Your task to perform on an android device: Open Yahoo.com Image 0: 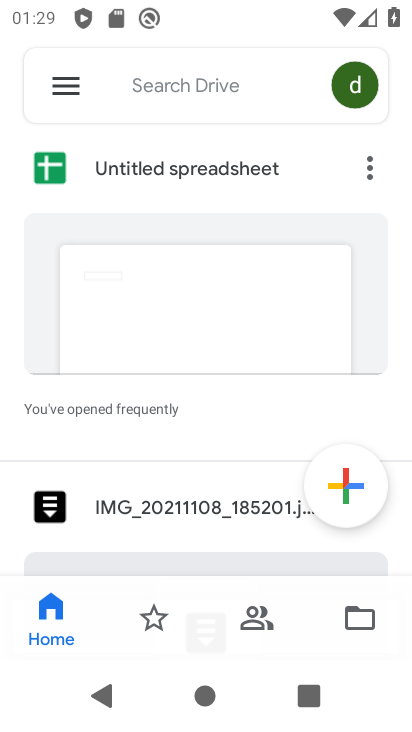
Step 0: press home button
Your task to perform on an android device: Open Yahoo.com Image 1: 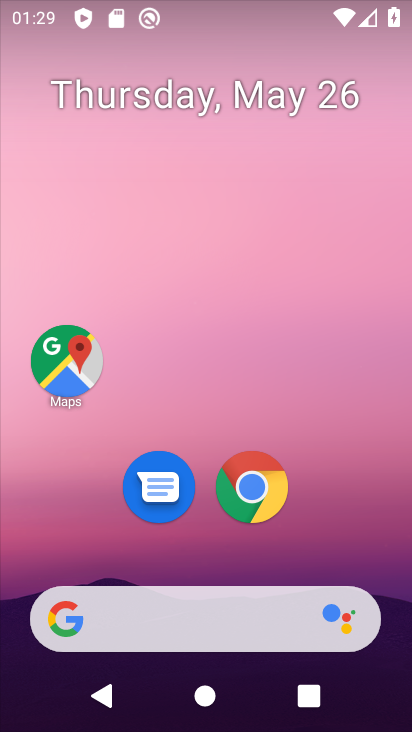
Step 1: drag from (248, 607) to (103, 6)
Your task to perform on an android device: Open Yahoo.com Image 2: 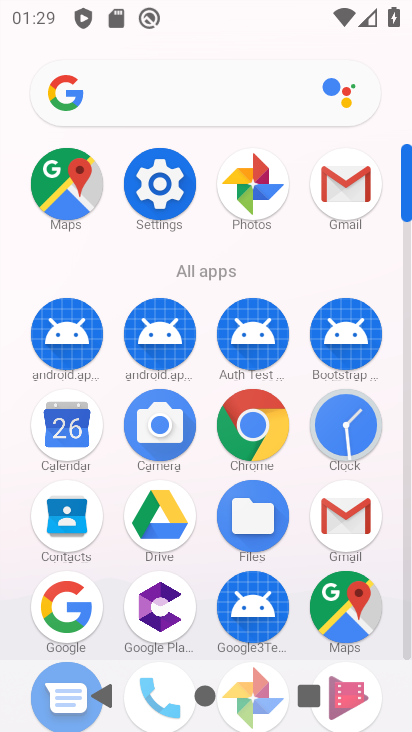
Step 2: drag from (213, 554) to (0, 389)
Your task to perform on an android device: Open Yahoo.com Image 3: 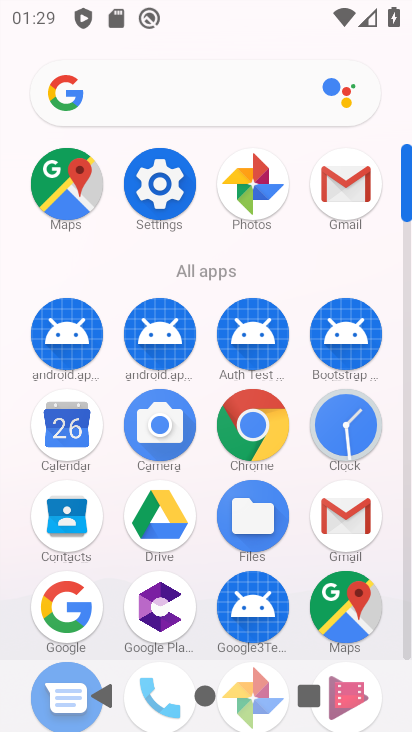
Step 3: drag from (282, 567) to (180, 48)
Your task to perform on an android device: Open Yahoo.com Image 4: 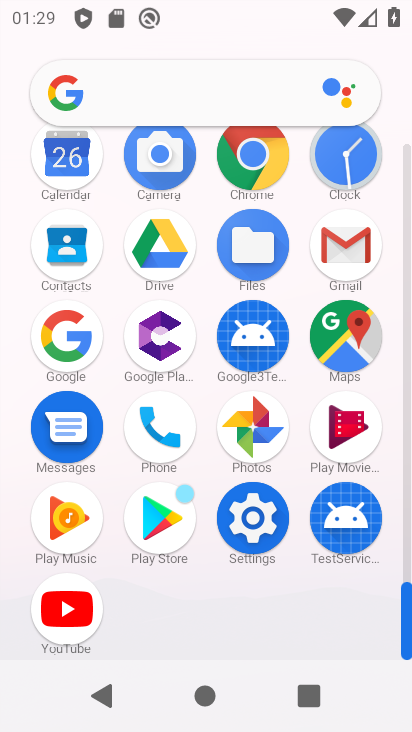
Step 4: click (246, 150)
Your task to perform on an android device: Open Yahoo.com Image 5: 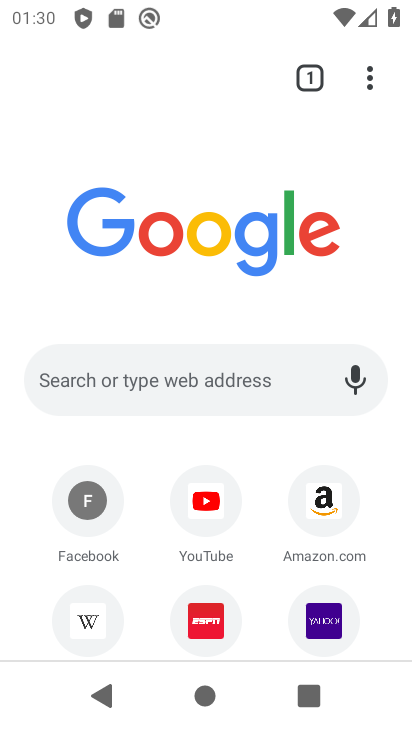
Step 5: click (300, 623)
Your task to perform on an android device: Open Yahoo.com Image 6: 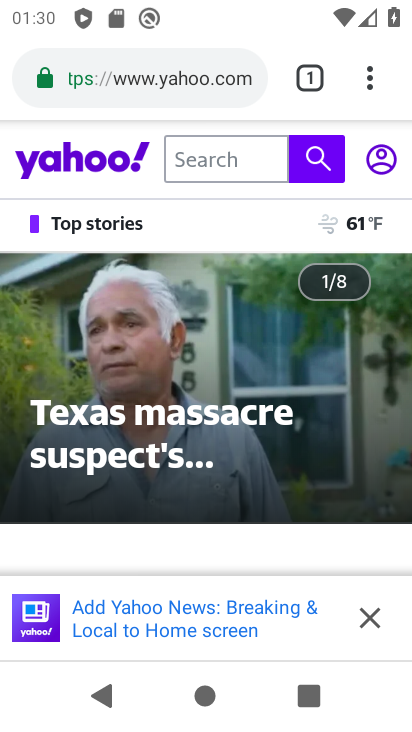
Step 6: task complete